Your task to perform on an android device: Open calendar and show me the third week of next month Image 0: 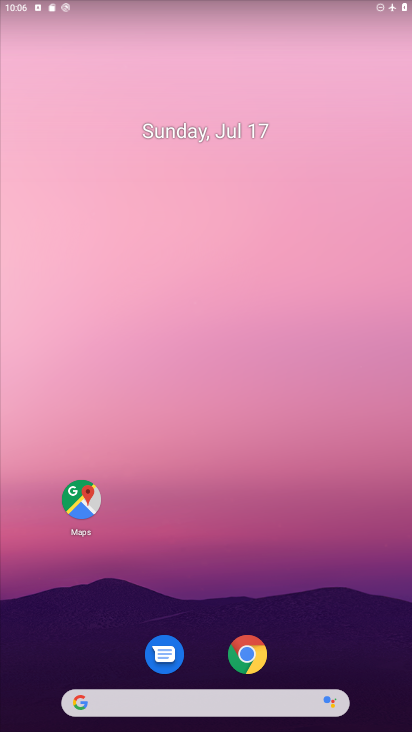
Step 0: drag from (215, 588) to (201, 165)
Your task to perform on an android device: Open calendar and show me the third week of next month Image 1: 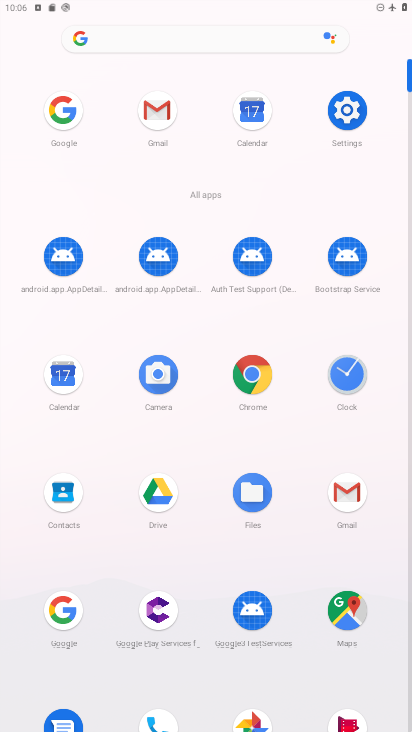
Step 1: click (69, 399)
Your task to perform on an android device: Open calendar and show me the third week of next month Image 2: 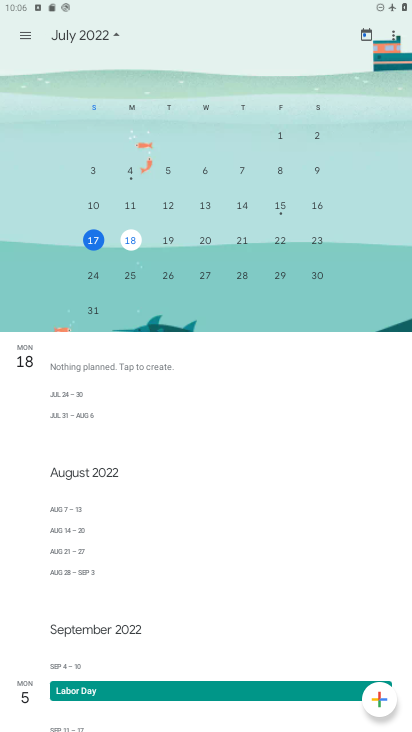
Step 2: click (118, 33)
Your task to perform on an android device: Open calendar and show me the third week of next month Image 3: 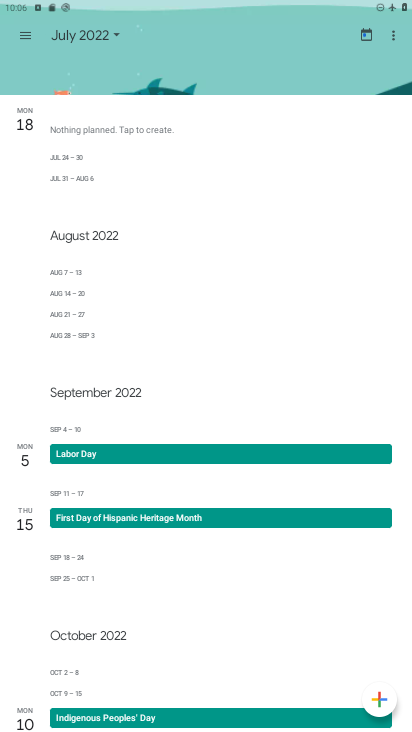
Step 3: click (116, 34)
Your task to perform on an android device: Open calendar and show me the third week of next month Image 4: 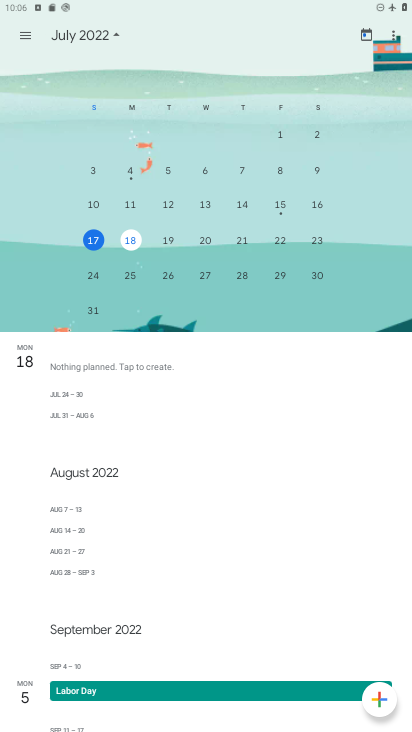
Step 4: drag from (348, 223) to (4, 212)
Your task to perform on an android device: Open calendar and show me the third week of next month Image 5: 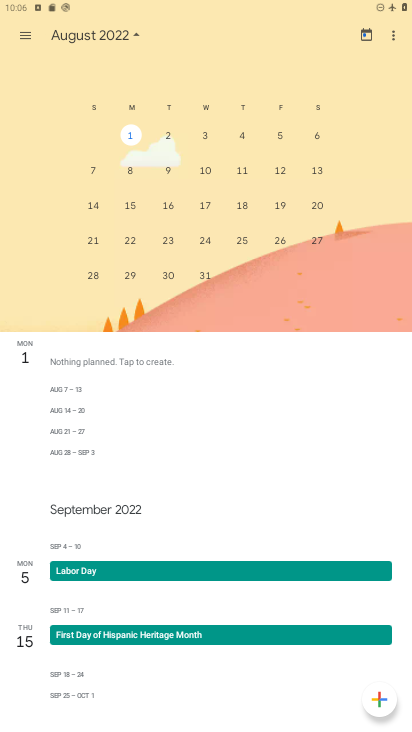
Step 5: click (87, 196)
Your task to perform on an android device: Open calendar and show me the third week of next month Image 6: 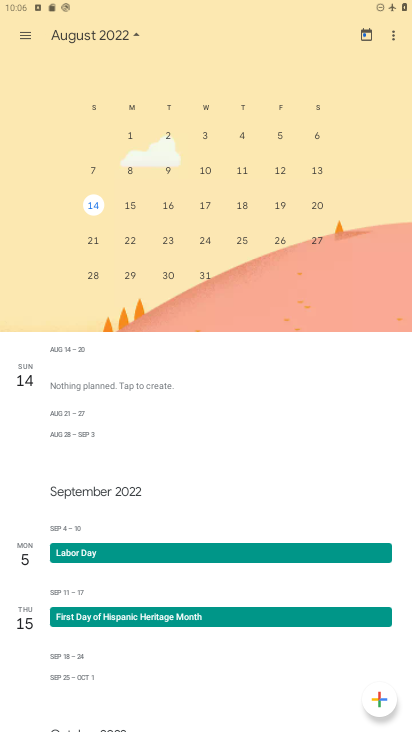
Step 6: task complete